Your task to perform on an android device: Open the Play Movies app and select the watchlist tab. Image 0: 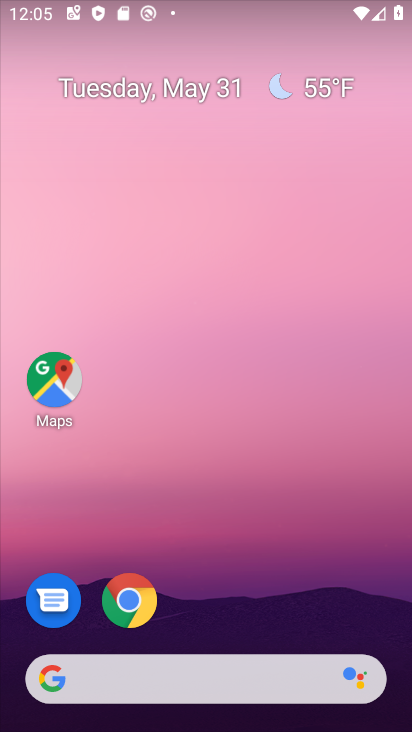
Step 0: drag from (257, 547) to (221, 232)
Your task to perform on an android device: Open the Play Movies app and select the watchlist tab. Image 1: 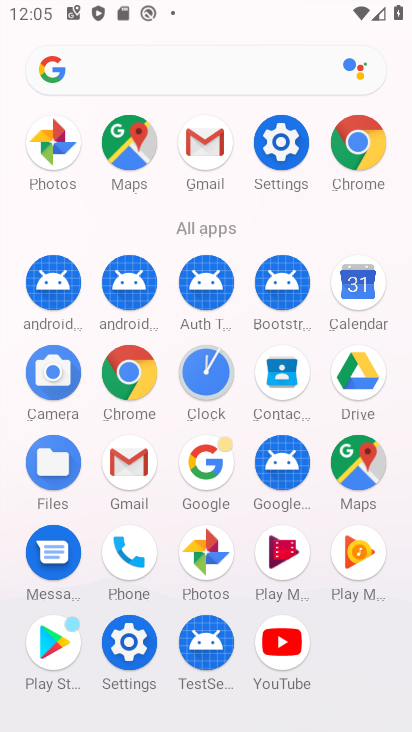
Step 1: click (284, 543)
Your task to perform on an android device: Open the Play Movies app and select the watchlist tab. Image 2: 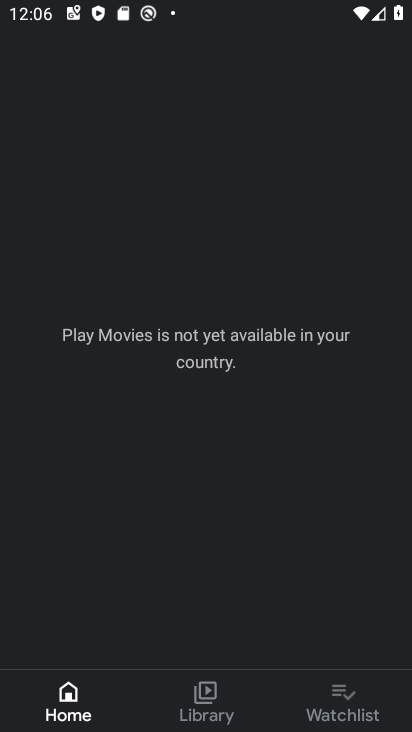
Step 2: click (348, 714)
Your task to perform on an android device: Open the Play Movies app and select the watchlist tab. Image 3: 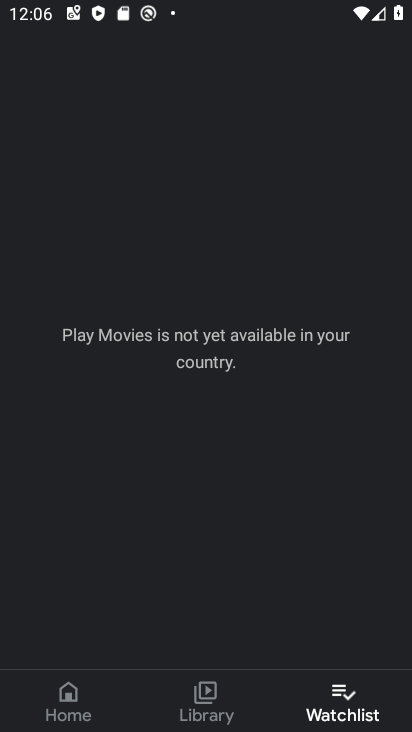
Step 3: task complete